Your task to perform on an android device: Go to privacy settings Image 0: 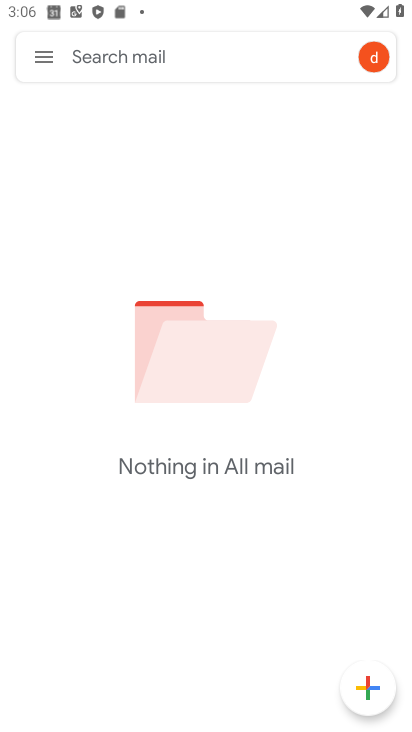
Step 0: press home button
Your task to perform on an android device: Go to privacy settings Image 1: 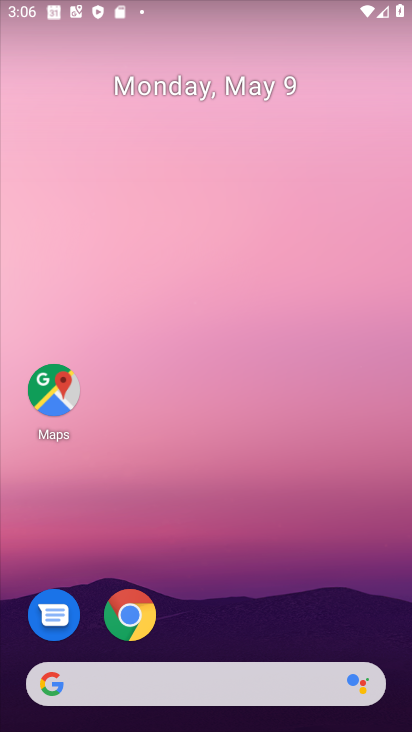
Step 1: drag from (231, 565) to (292, 128)
Your task to perform on an android device: Go to privacy settings Image 2: 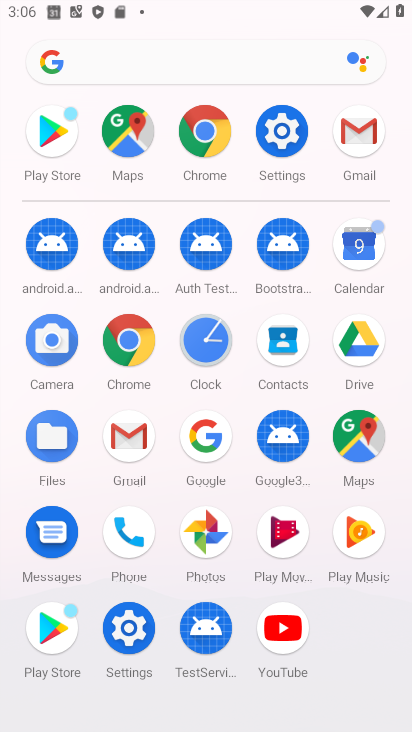
Step 2: click (199, 129)
Your task to perform on an android device: Go to privacy settings Image 3: 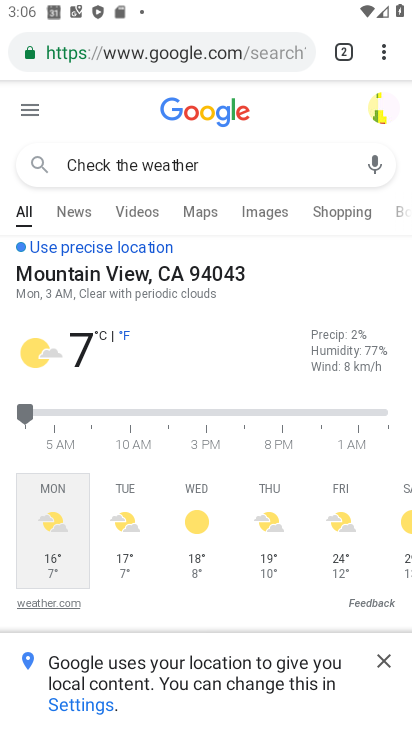
Step 3: click (369, 46)
Your task to perform on an android device: Go to privacy settings Image 4: 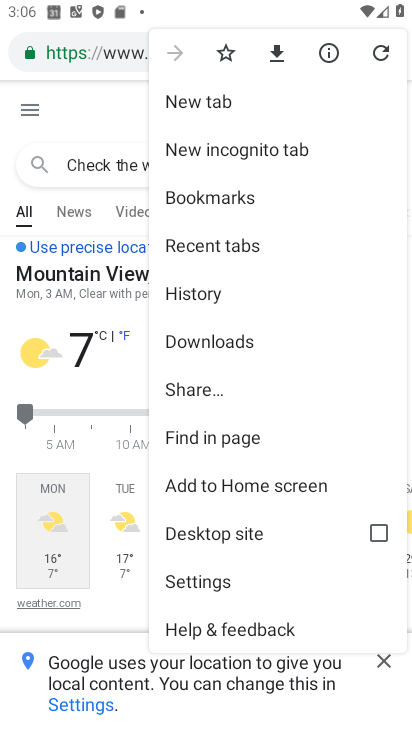
Step 4: click (204, 593)
Your task to perform on an android device: Go to privacy settings Image 5: 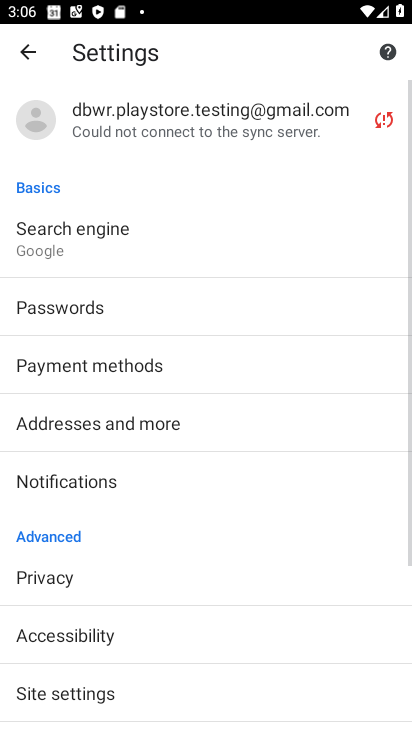
Step 5: click (80, 577)
Your task to perform on an android device: Go to privacy settings Image 6: 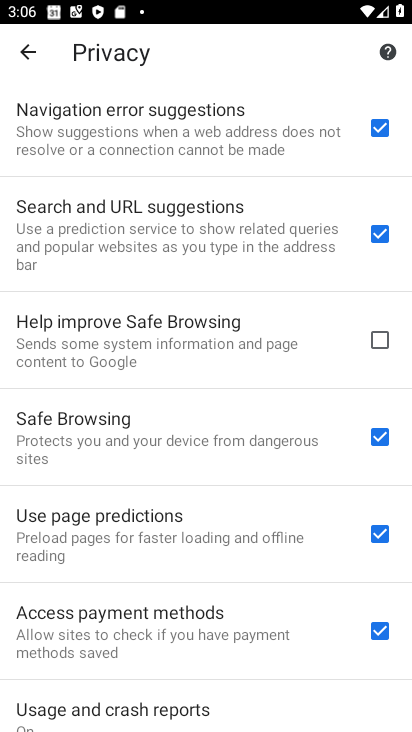
Step 6: task complete